Your task to perform on an android device: turn off location Image 0: 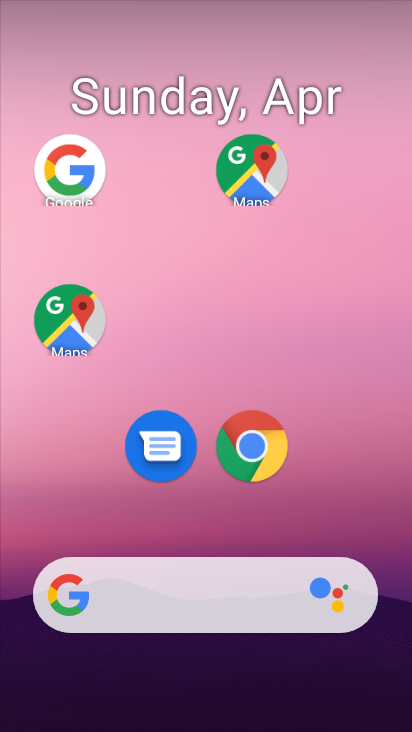
Step 0: drag from (188, 541) to (382, 578)
Your task to perform on an android device: turn off location Image 1: 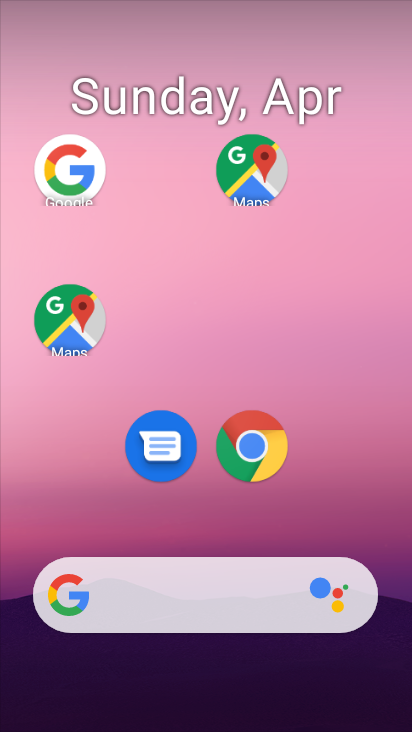
Step 1: drag from (212, 551) to (171, 54)
Your task to perform on an android device: turn off location Image 2: 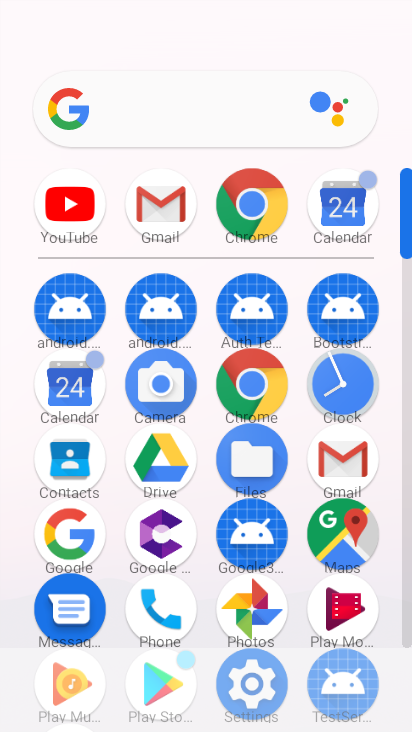
Step 2: click (267, 671)
Your task to perform on an android device: turn off location Image 3: 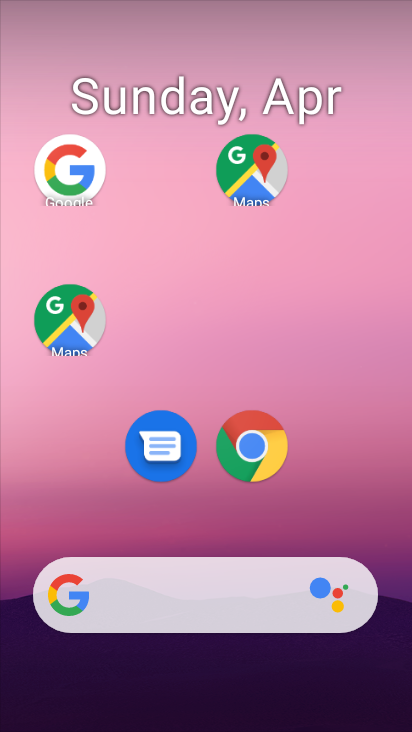
Step 3: drag from (218, 544) to (350, 86)
Your task to perform on an android device: turn off location Image 4: 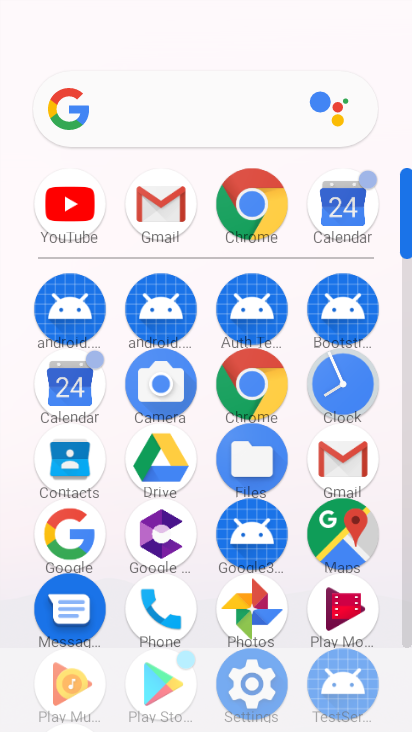
Step 4: click (243, 659)
Your task to perform on an android device: turn off location Image 5: 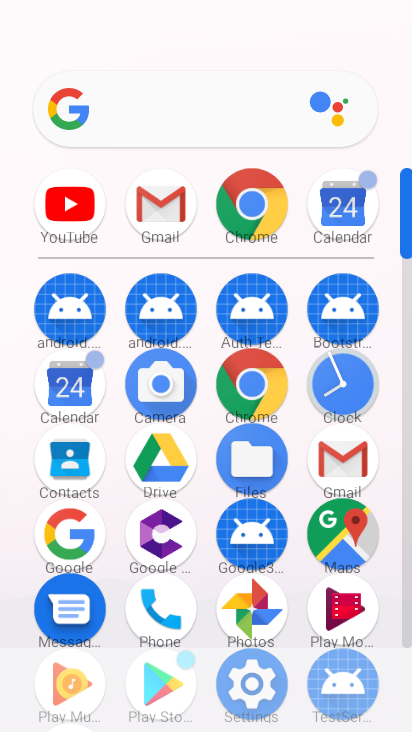
Step 5: drag from (213, 638) to (176, 242)
Your task to perform on an android device: turn off location Image 6: 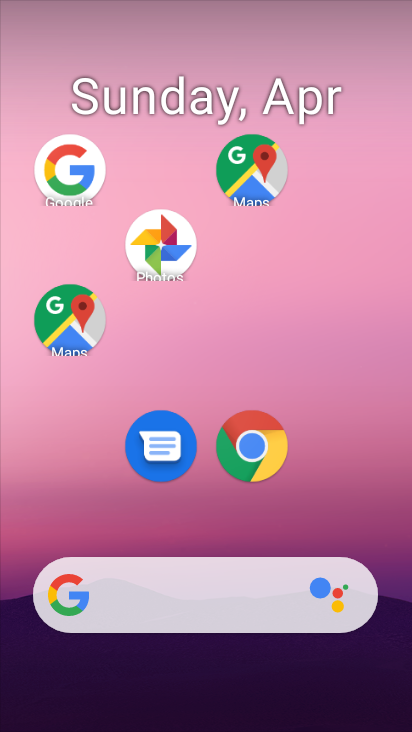
Step 6: drag from (207, 536) to (190, 39)
Your task to perform on an android device: turn off location Image 7: 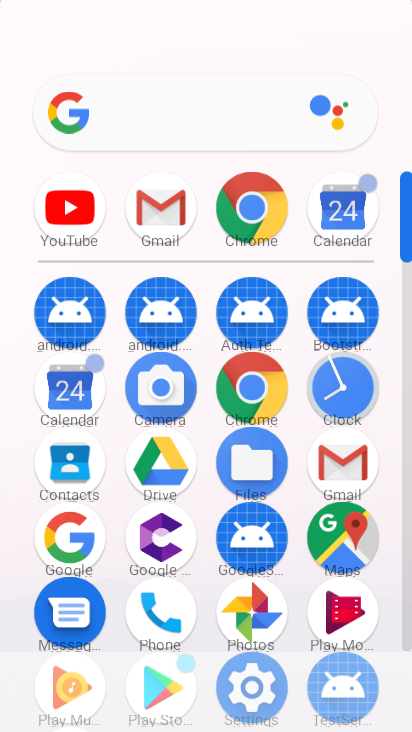
Step 7: drag from (204, 564) to (154, 213)
Your task to perform on an android device: turn off location Image 8: 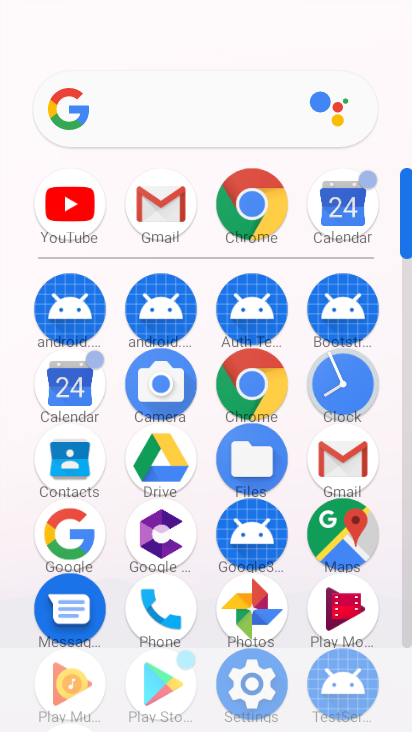
Step 8: drag from (204, 587) to (163, 265)
Your task to perform on an android device: turn off location Image 9: 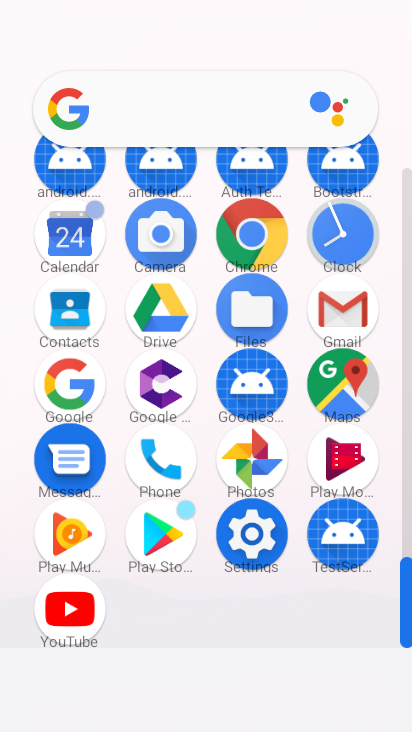
Step 9: click (252, 538)
Your task to perform on an android device: turn off location Image 10: 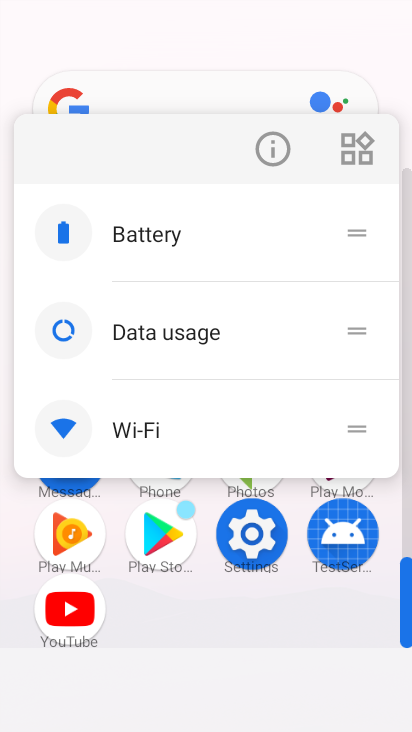
Step 10: click (253, 539)
Your task to perform on an android device: turn off location Image 11: 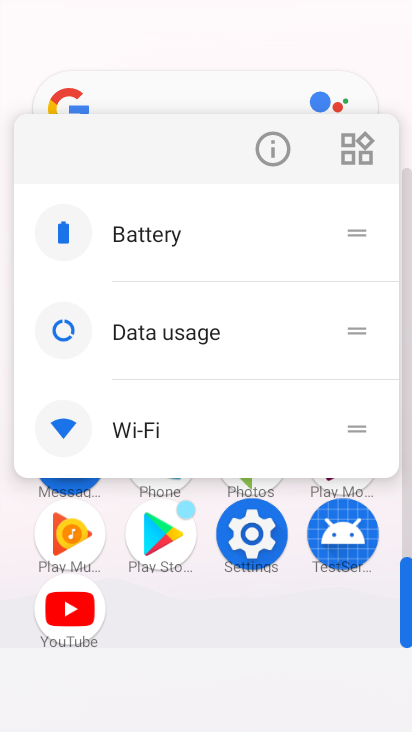
Step 11: click (218, 521)
Your task to perform on an android device: turn off location Image 12: 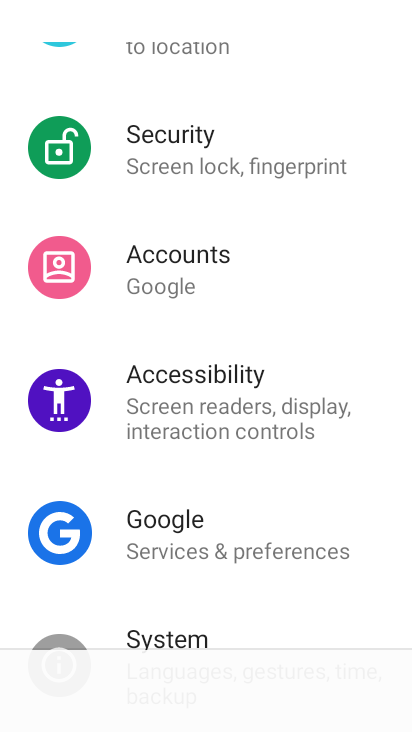
Step 12: click (123, 62)
Your task to perform on an android device: turn off location Image 13: 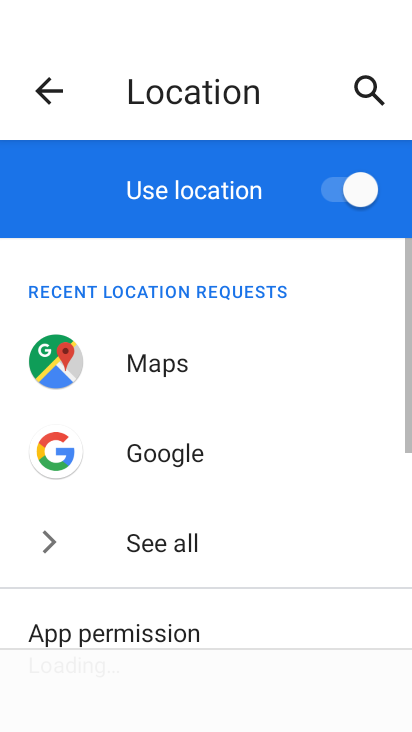
Step 13: click (361, 185)
Your task to perform on an android device: turn off location Image 14: 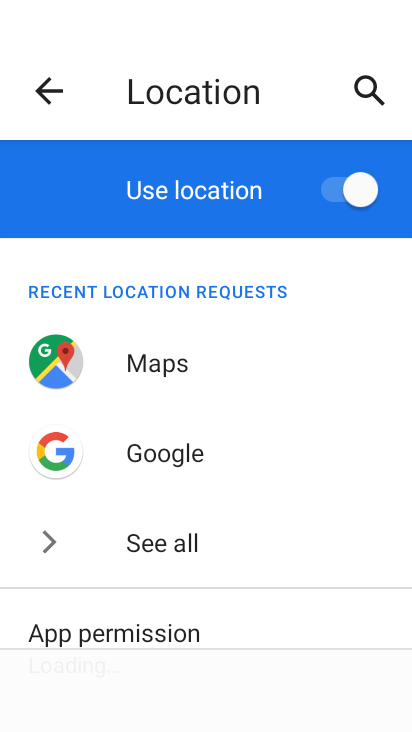
Step 14: task complete